Your task to perform on an android device: Open Chrome and go to the settings page Image 0: 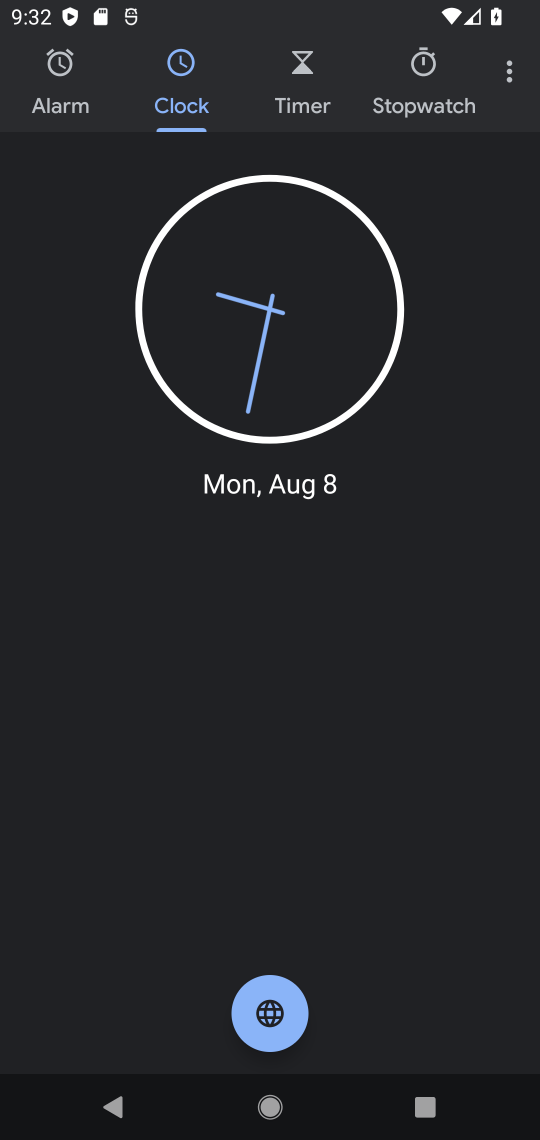
Step 0: press home button
Your task to perform on an android device: Open Chrome and go to the settings page Image 1: 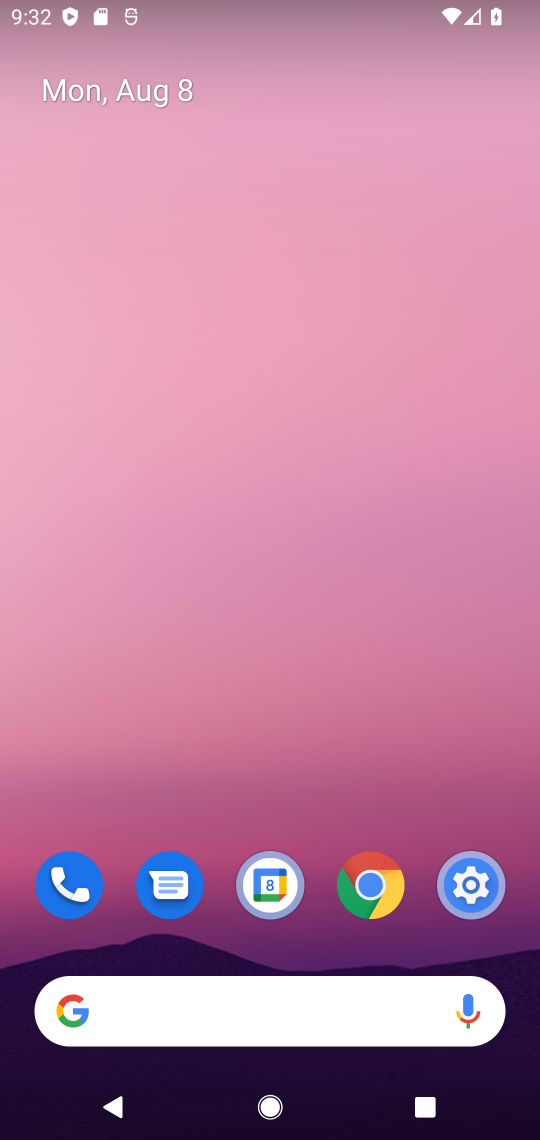
Step 1: click (374, 872)
Your task to perform on an android device: Open Chrome and go to the settings page Image 2: 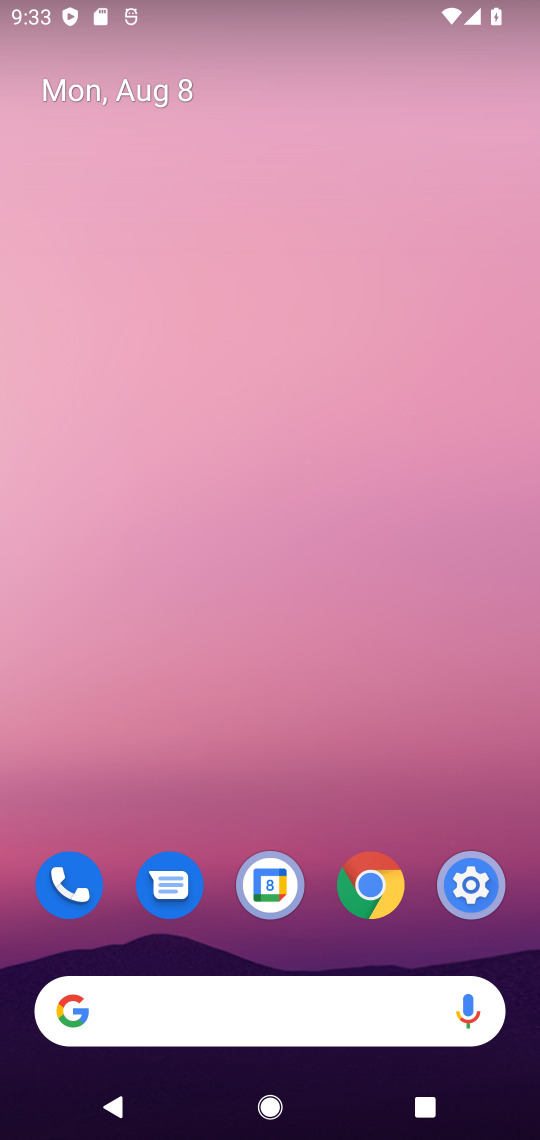
Step 2: click (355, 877)
Your task to perform on an android device: Open Chrome and go to the settings page Image 3: 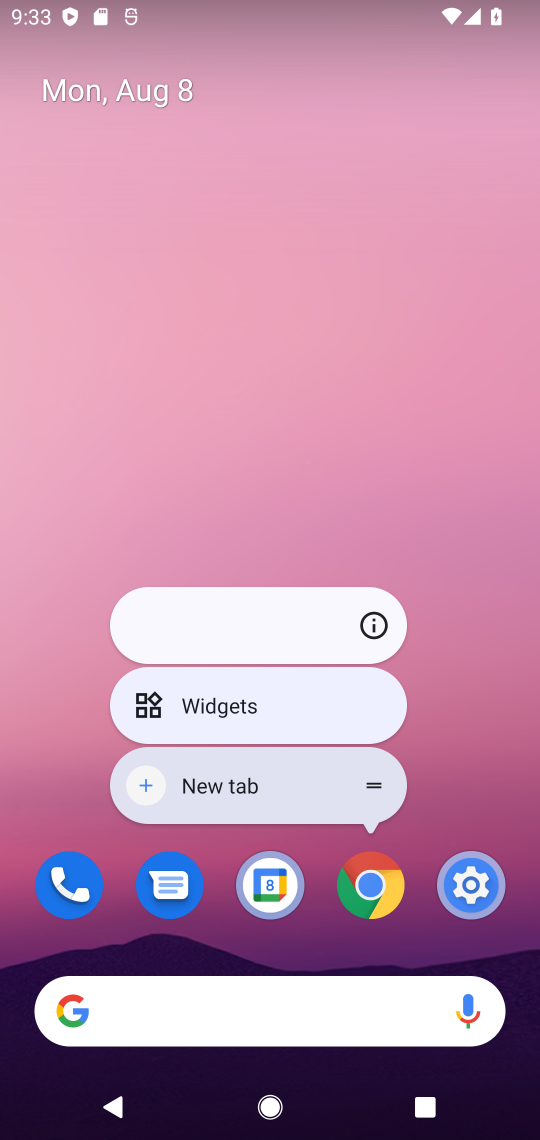
Step 3: click (355, 877)
Your task to perform on an android device: Open Chrome and go to the settings page Image 4: 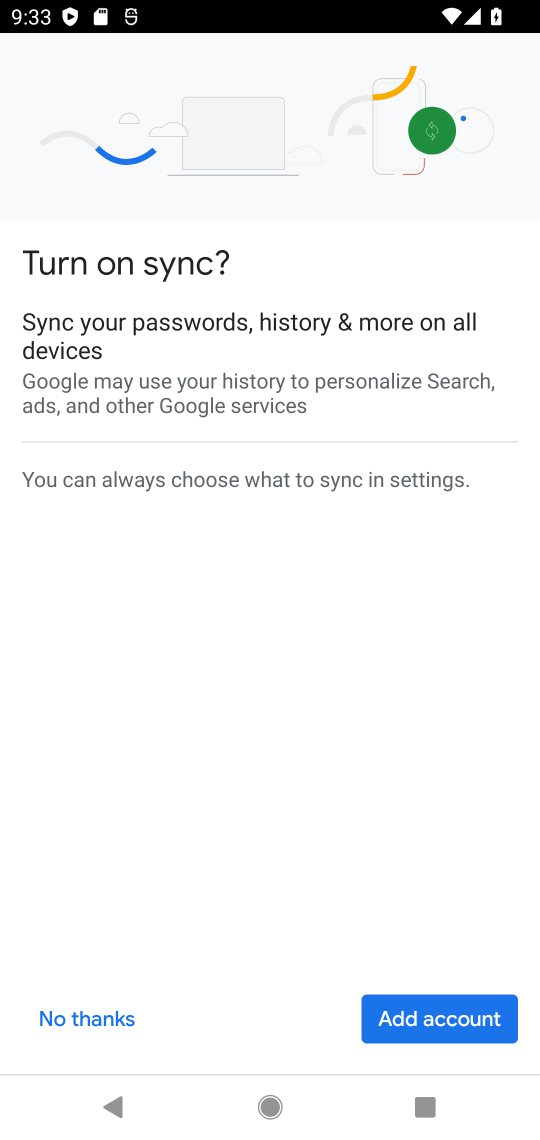
Step 4: click (91, 1021)
Your task to perform on an android device: Open Chrome and go to the settings page Image 5: 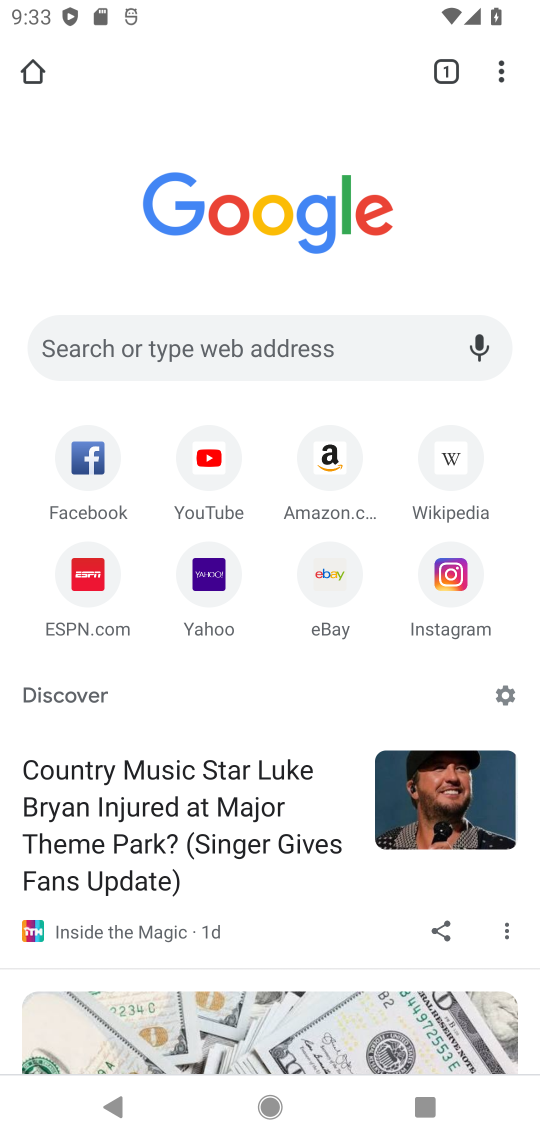
Step 5: click (498, 73)
Your task to perform on an android device: Open Chrome and go to the settings page Image 6: 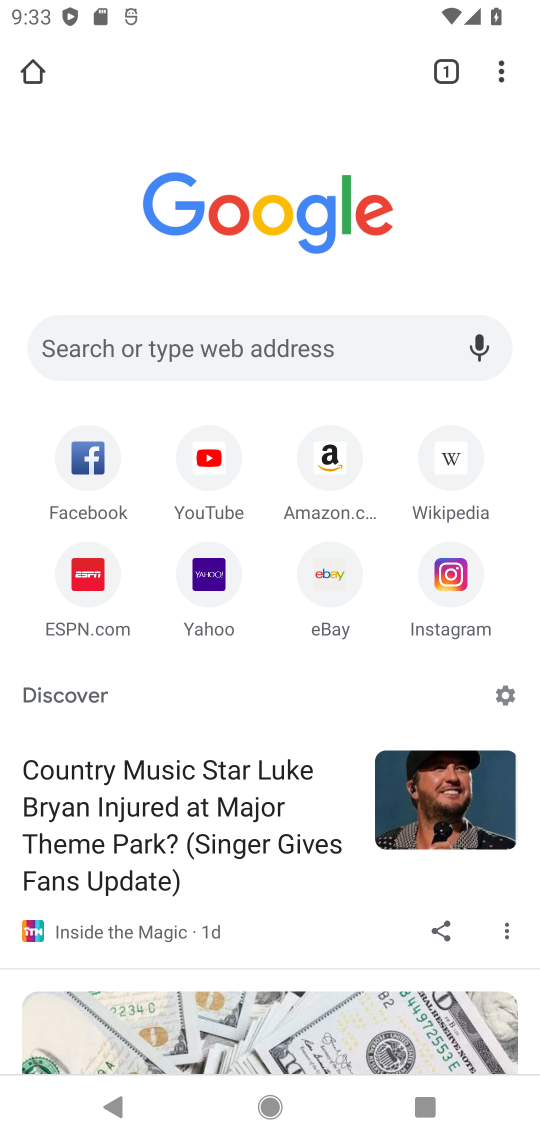
Step 6: click (498, 73)
Your task to perform on an android device: Open Chrome and go to the settings page Image 7: 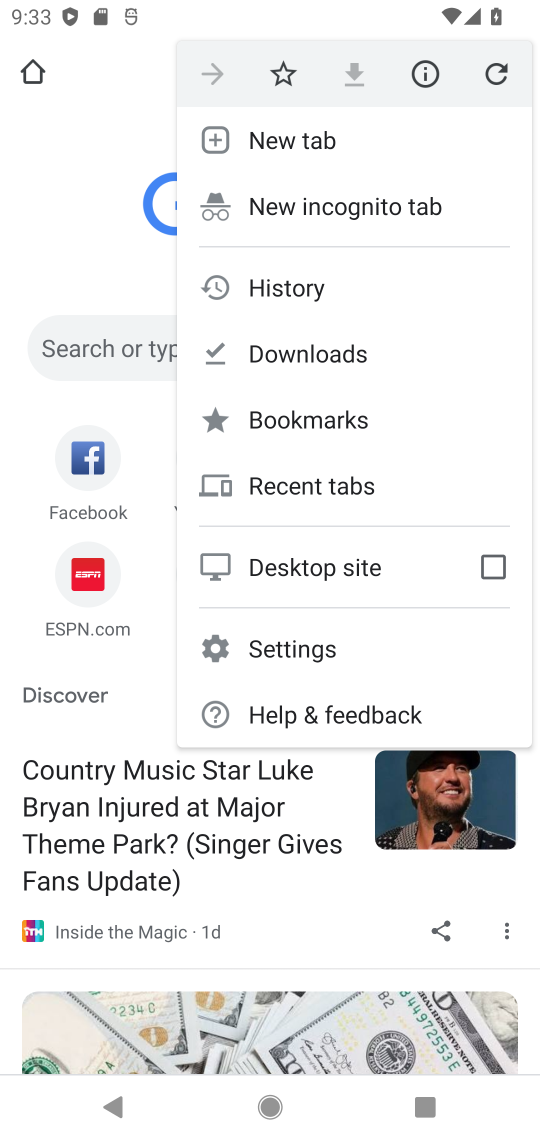
Step 7: click (285, 645)
Your task to perform on an android device: Open Chrome and go to the settings page Image 8: 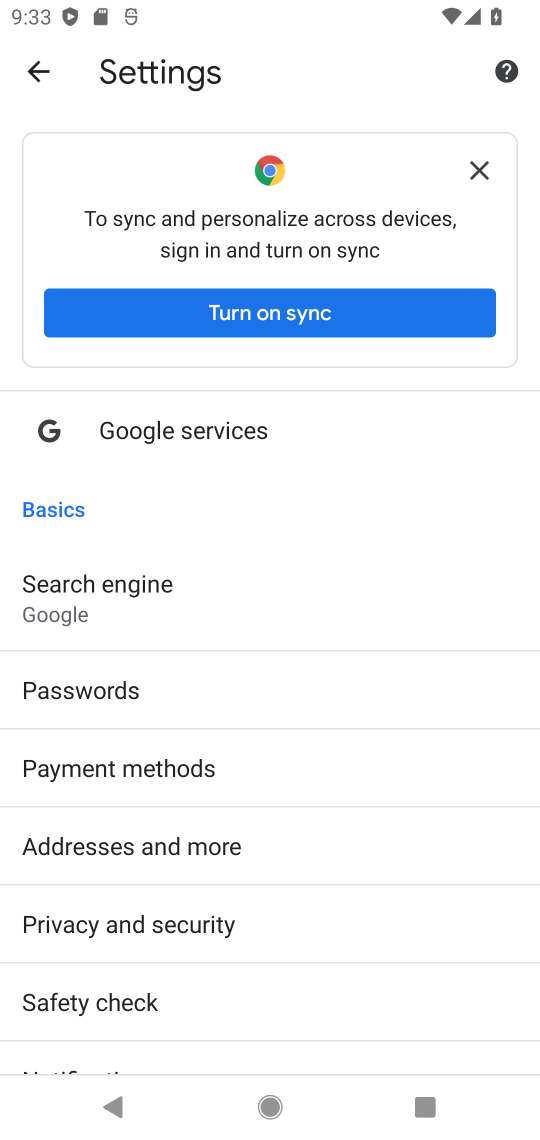
Step 8: task complete